Your task to perform on an android device: Open Chrome and go to the settings page Image 0: 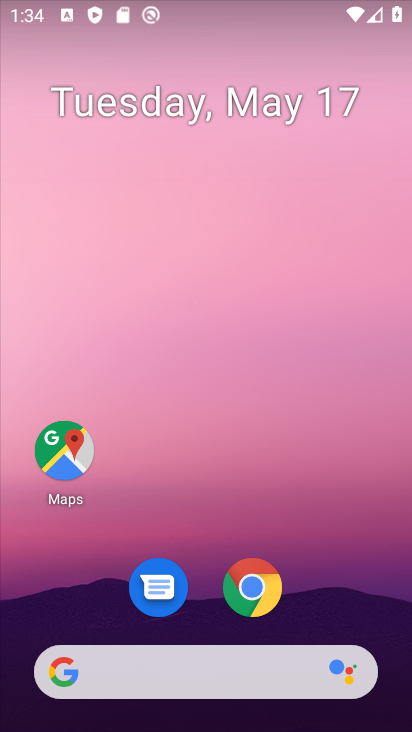
Step 0: drag from (171, 633) to (116, 0)
Your task to perform on an android device: Open Chrome and go to the settings page Image 1: 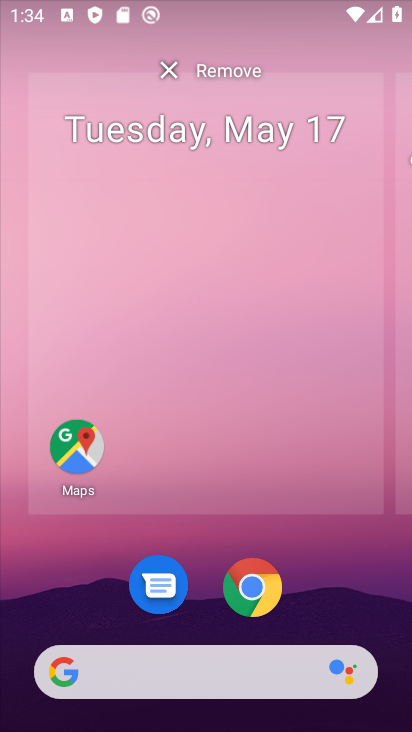
Step 1: click (180, 353)
Your task to perform on an android device: Open Chrome and go to the settings page Image 2: 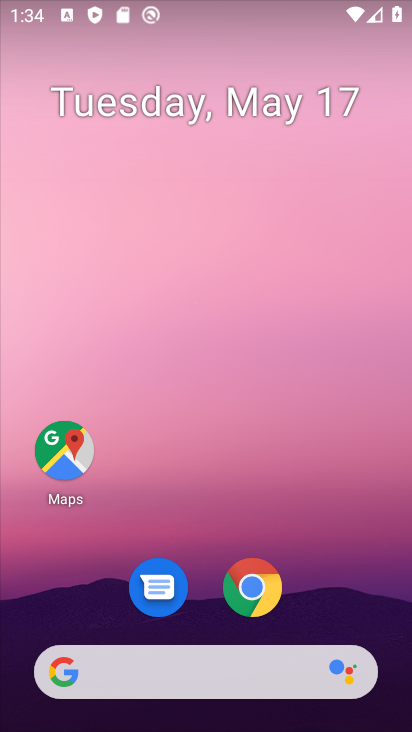
Step 2: click (253, 595)
Your task to perform on an android device: Open Chrome and go to the settings page Image 3: 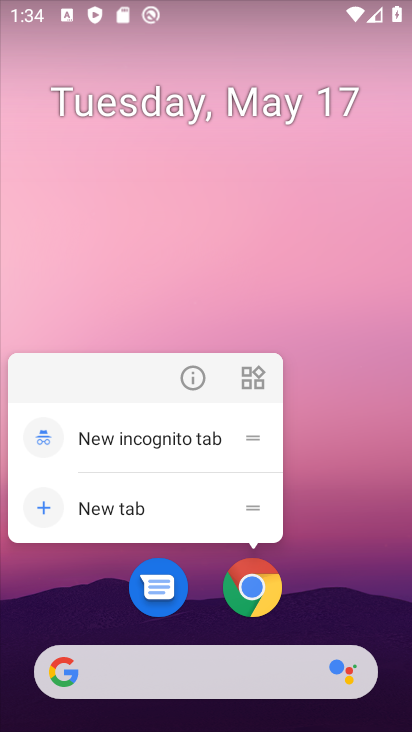
Step 3: click (188, 383)
Your task to perform on an android device: Open Chrome and go to the settings page Image 4: 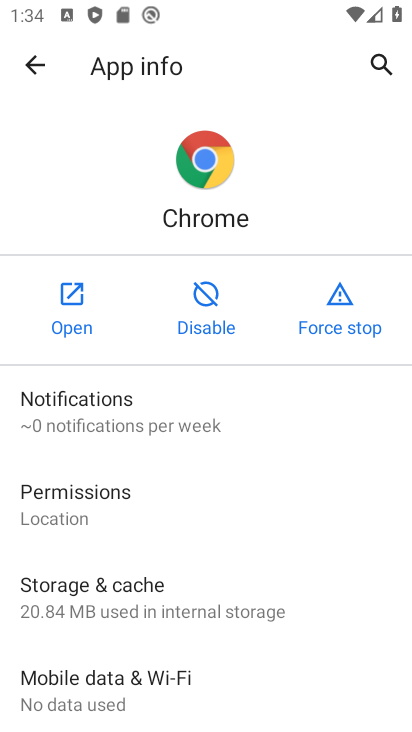
Step 4: click (68, 302)
Your task to perform on an android device: Open Chrome and go to the settings page Image 5: 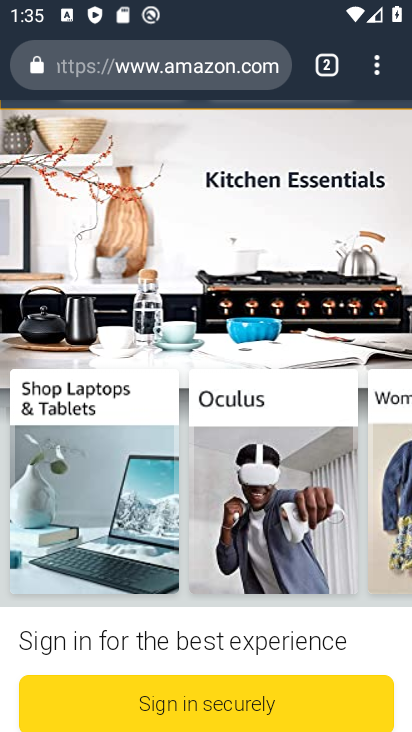
Step 5: drag from (266, 607) to (279, 295)
Your task to perform on an android device: Open Chrome and go to the settings page Image 6: 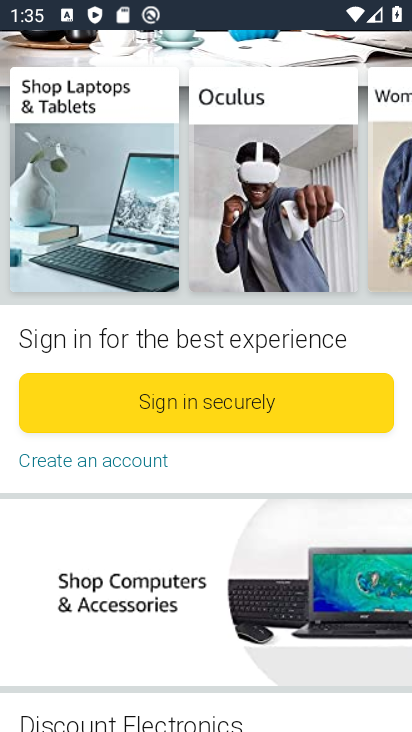
Step 6: drag from (304, 189) to (409, 19)
Your task to perform on an android device: Open Chrome and go to the settings page Image 7: 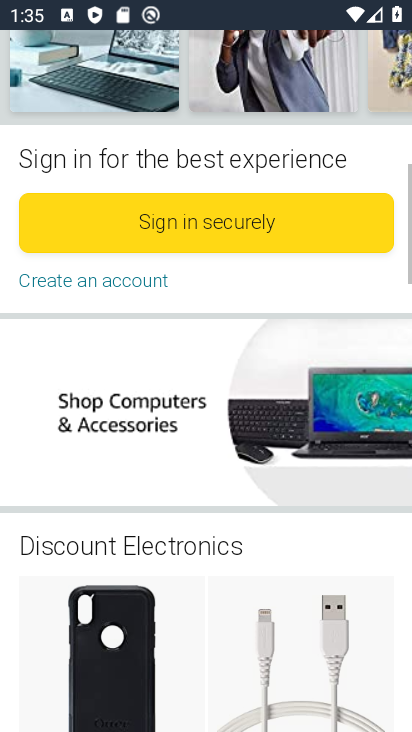
Step 7: click (371, 82)
Your task to perform on an android device: Open Chrome and go to the settings page Image 8: 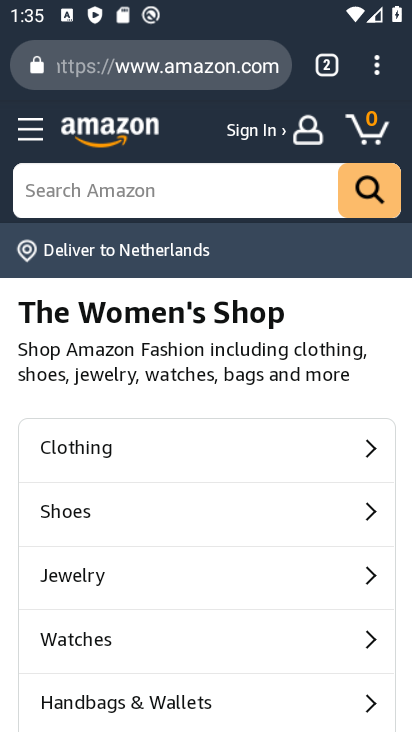
Step 8: click (376, 75)
Your task to perform on an android device: Open Chrome and go to the settings page Image 9: 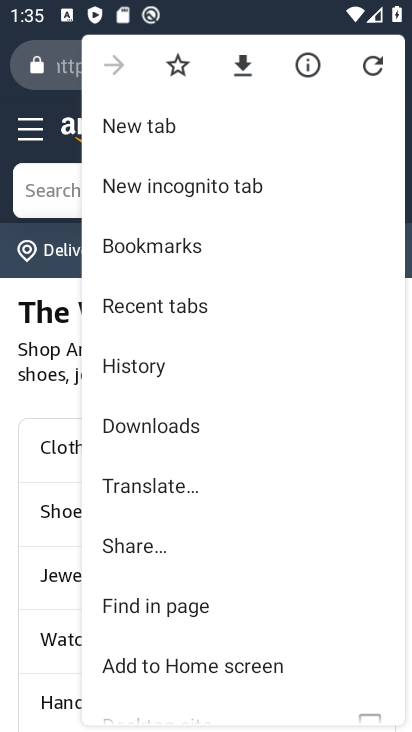
Step 9: drag from (218, 617) to (244, 109)
Your task to perform on an android device: Open Chrome and go to the settings page Image 10: 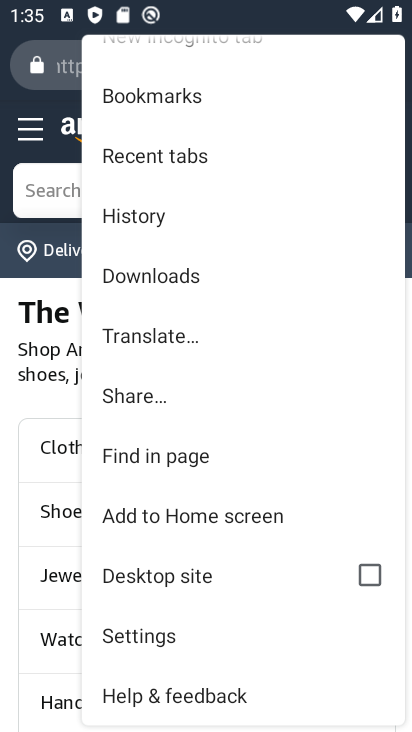
Step 10: click (208, 226)
Your task to perform on an android device: Open Chrome and go to the settings page Image 11: 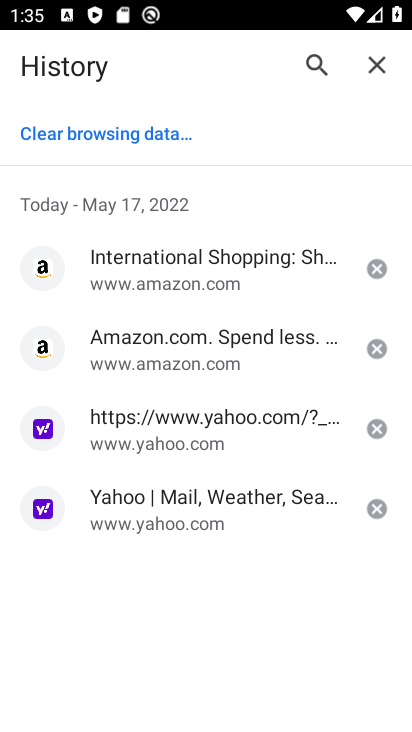
Step 11: drag from (206, 509) to (253, 228)
Your task to perform on an android device: Open Chrome and go to the settings page Image 12: 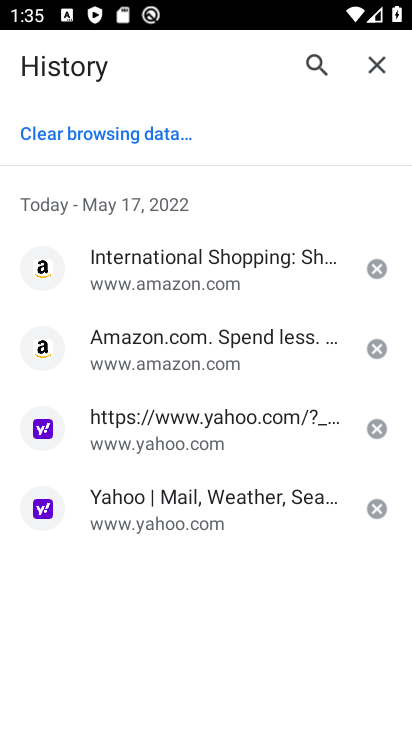
Step 12: click (372, 65)
Your task to perform on an android device: Open Chrome and go to the settings page Image 13: 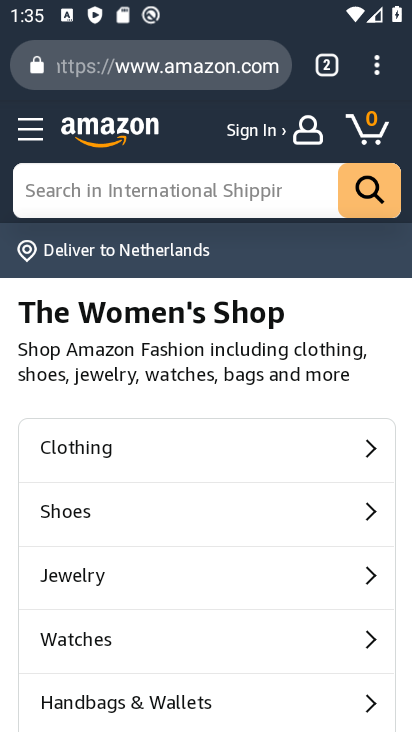
Step 13: click (373, 66)
Your task to perform on an android device: Open Chrome and go to the settings page Image 14: 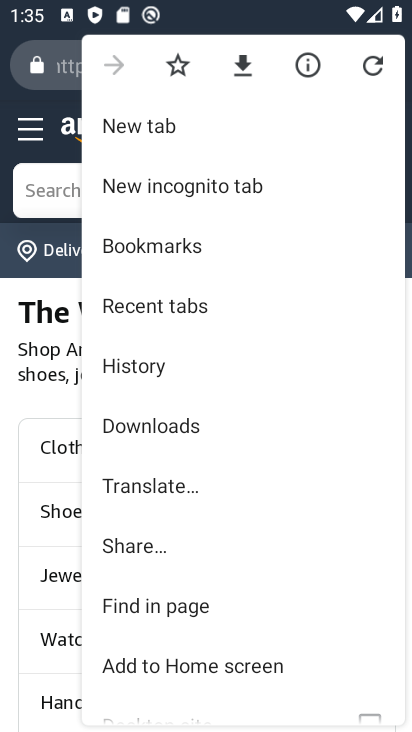
Step 14: drag from (180, 516) to (261, 182)
Your task to perform on an android device: Open Chrome and go to the settings page Image 15: 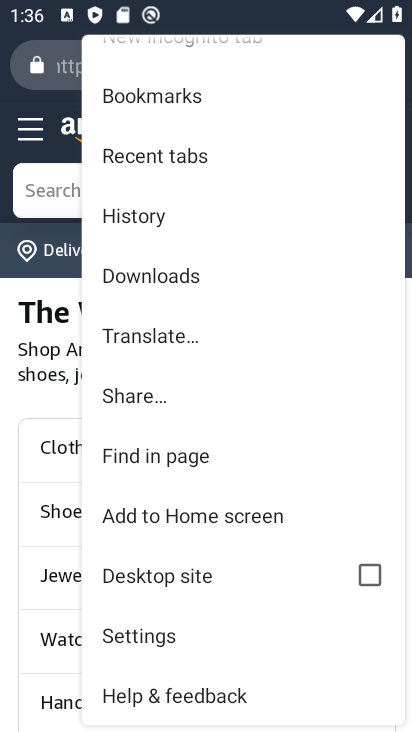
Step 15: click (164, 627)
Your task to perform on an android device: Open Chrome and go to the settings page Image 16: 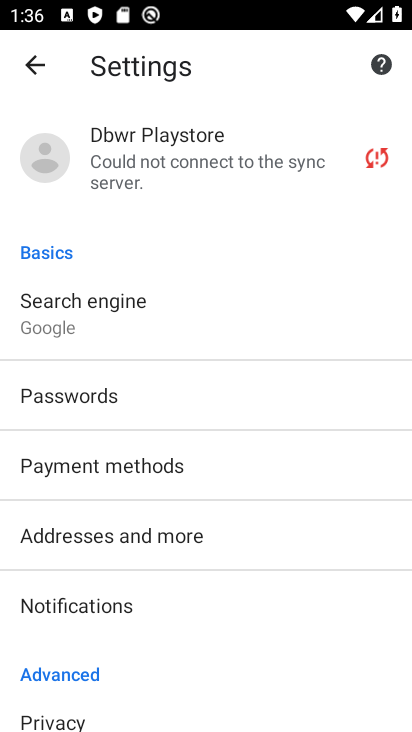
Step 16: task complete